Your task to perform on an android device: delete location history Image 0: 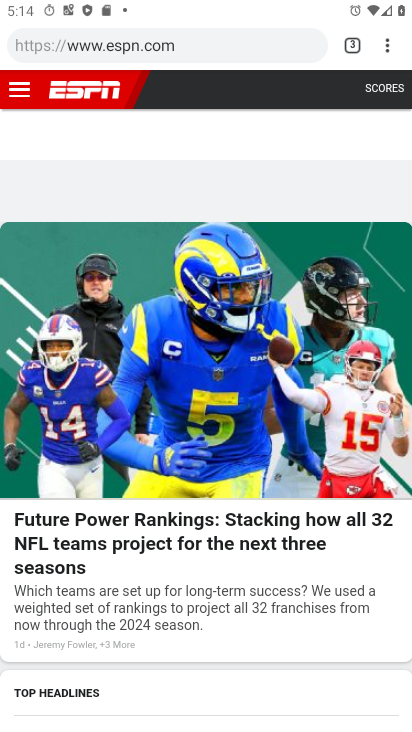
Step 0: press home button
Your task to perform on an android device: delete location history Image 1: 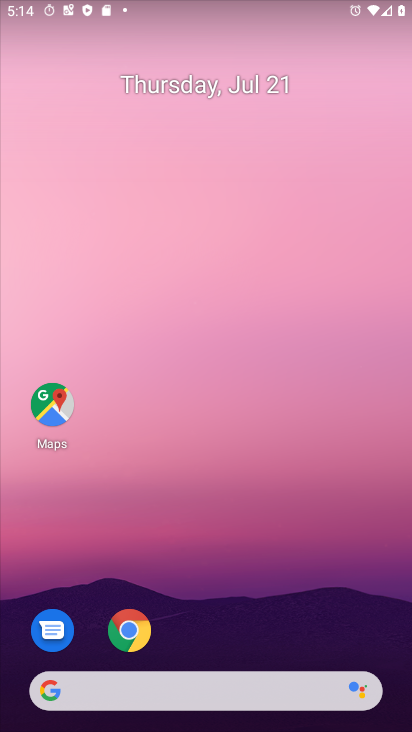
Step 1: click (53, 404)
Your task to perform on an android device: delete location history Image 2: 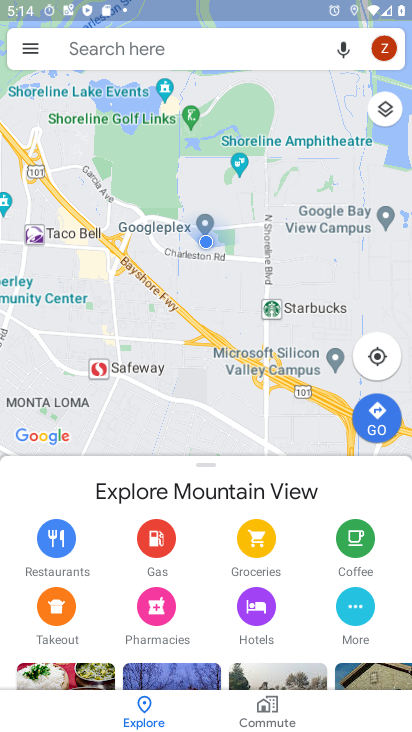
Step 2: click (28, 48)
Your task to perform on an android device: delete location history Image 3: 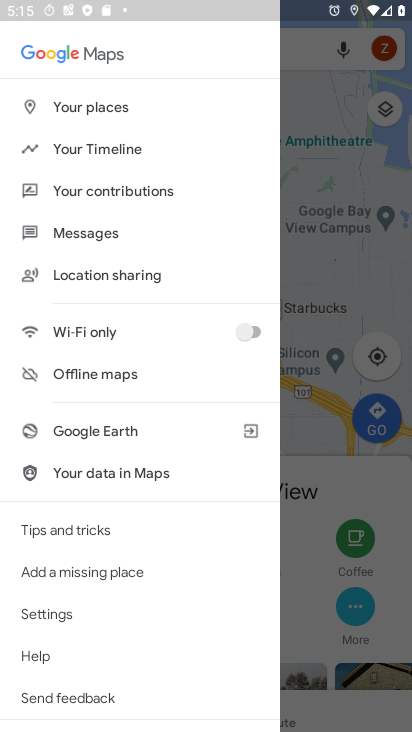
Step 3: click (47, 614)
Your task to perform on an android device: delete location history Image 4: 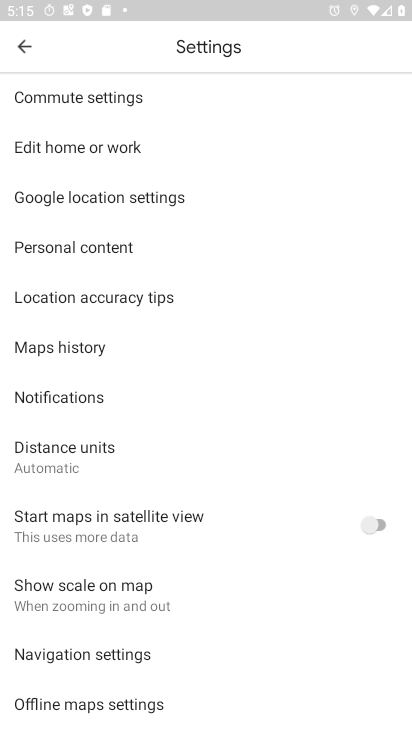
Step 4: click (62, 241)
Your task to perform on an android device: delete location history Image 5: 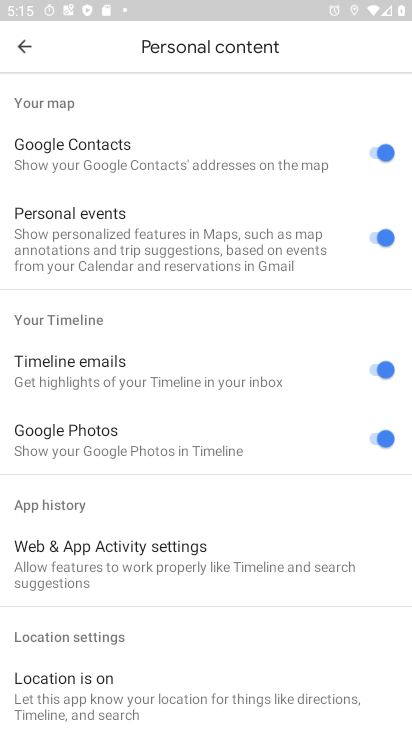
Step 5: drag from (108, 501) to (199, 284)
Your task to perform on an android device: delete location history Image 6: 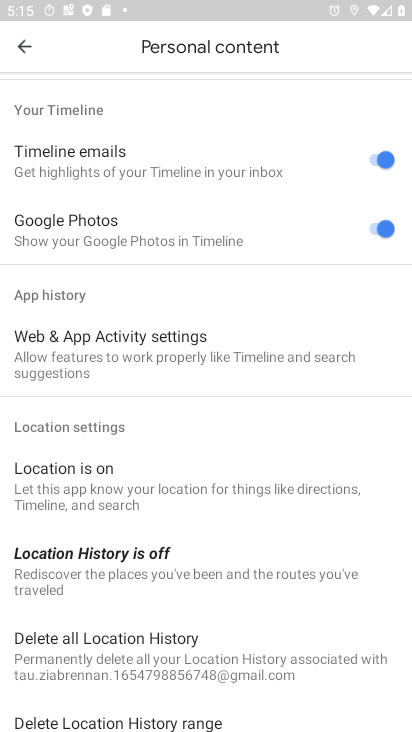
Step 6: drag from (163, 584) to (268, 442)
Your task to perform on an android device: delete location history Image 7: 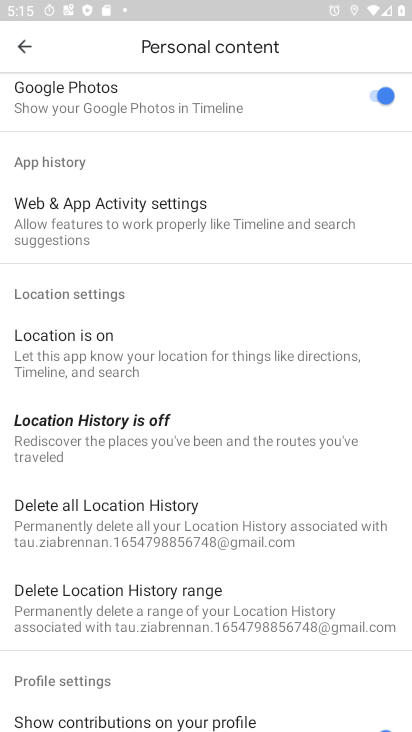
Step 7: click (112, 510)
Your task to perform on an android device: delete location history Image 8: 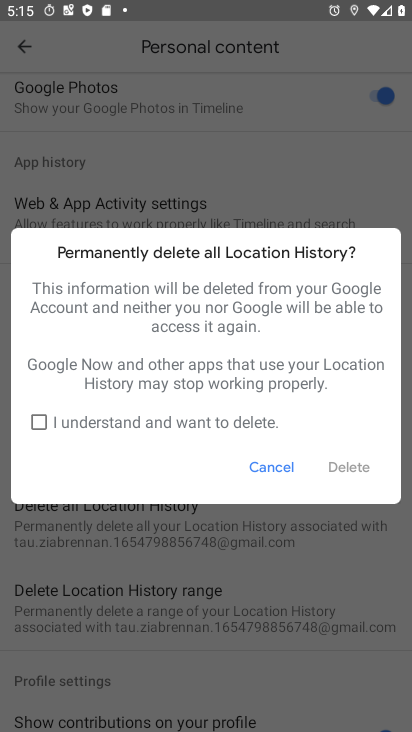
Step 8: click (38, 420)
Your task to perform on an android device: delete location history Image 9: 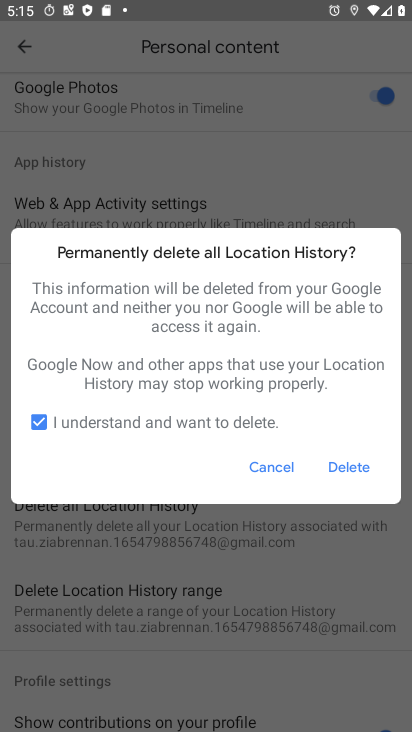
Step 9: click (347, 467)
Your task to perform on an android device: delete location history Image 10: 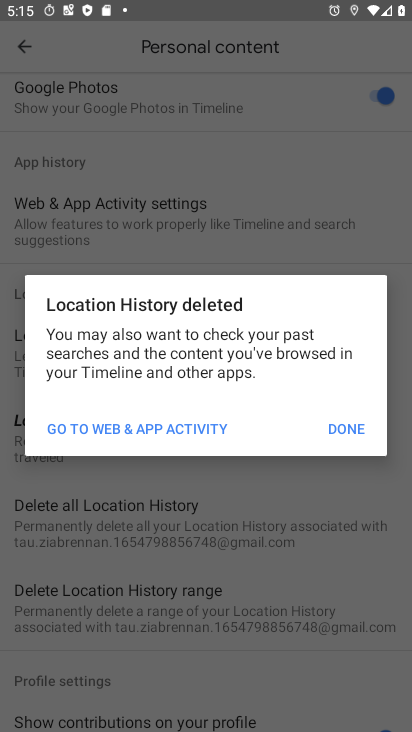
Step 10: click (345, 428)
Your task to perform on an android device: delete location history Image 11: 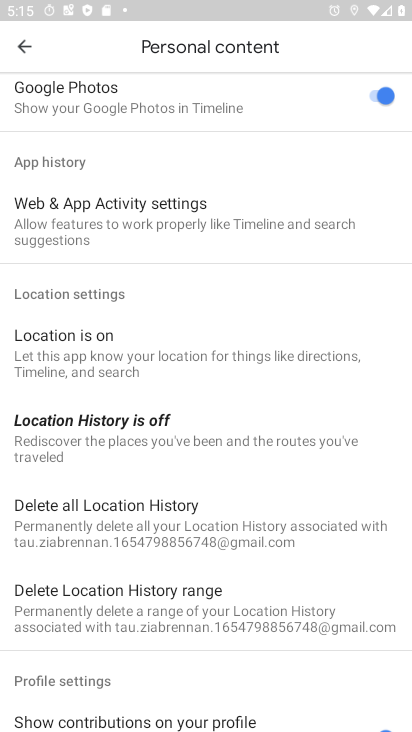
Step 11: task complete